Your task to perform on an android device: Do I have any events tomorrow? Image 0: 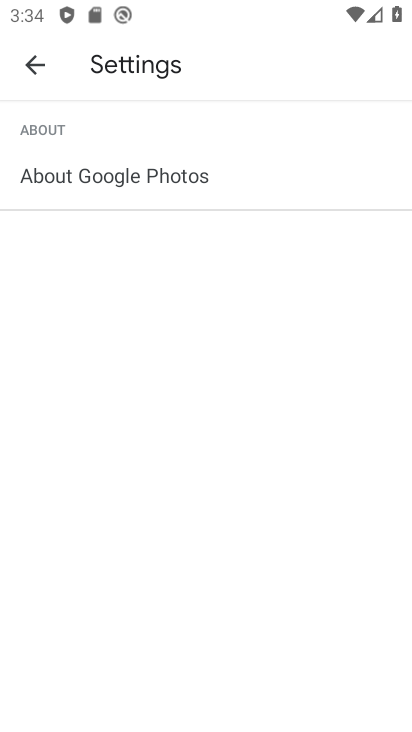
Step 0: press home button
Your task to perform on an android device: Do I have any events tomorrow? Image 1: 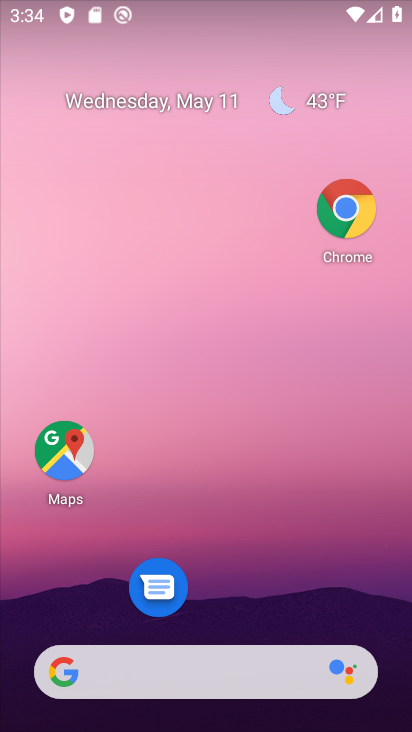
Step 1: task complete